Your task to perform on an android device: Search for vegetarian restaurants on Maps Image 0: 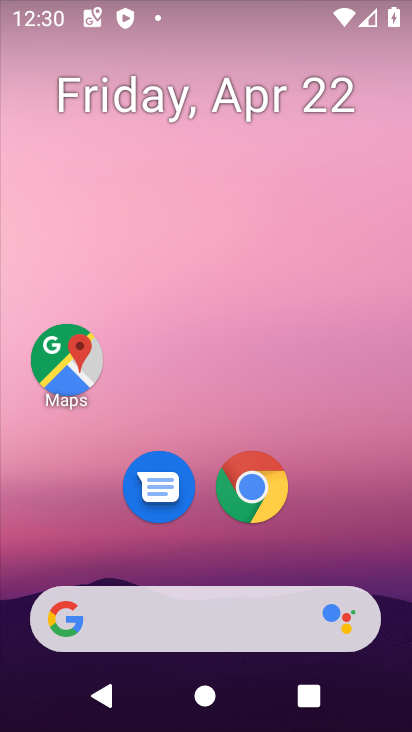
Step 0: click (70, 353)
Your task to perform on an android device: Search for vegetarian restaurants on Maps Image 1: 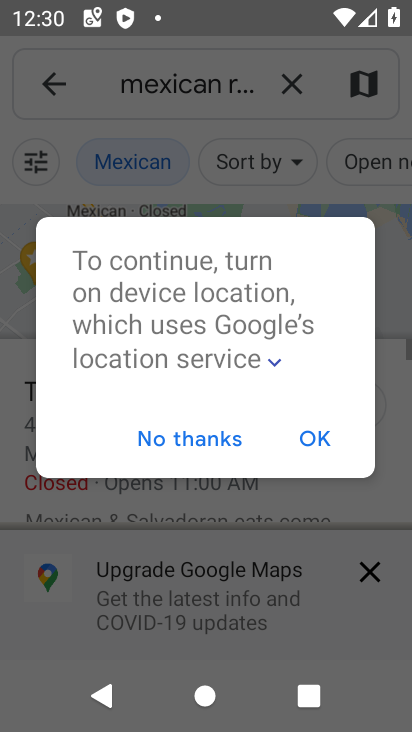
Step 1: click (303, 423)
Your task to perform on an android device: Search for vegetarian restaurants on Maps Image 2: 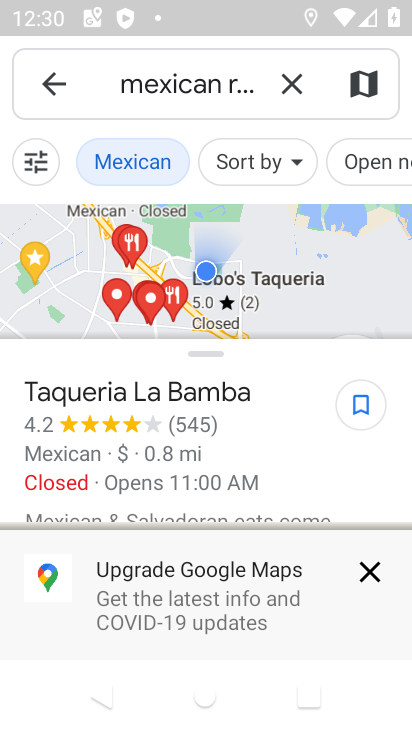
Step 2: click (291, 83)
Your task to perform on an android device: Search for vegetarian restaurants on Maps Image 3: 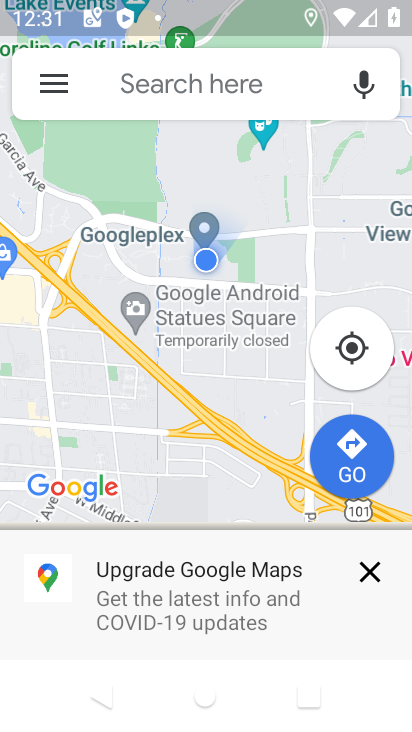
Step 3: click (240, 76)
Your task to perform on an android device: Search for vegetarian restaurants on Maps Image 4: 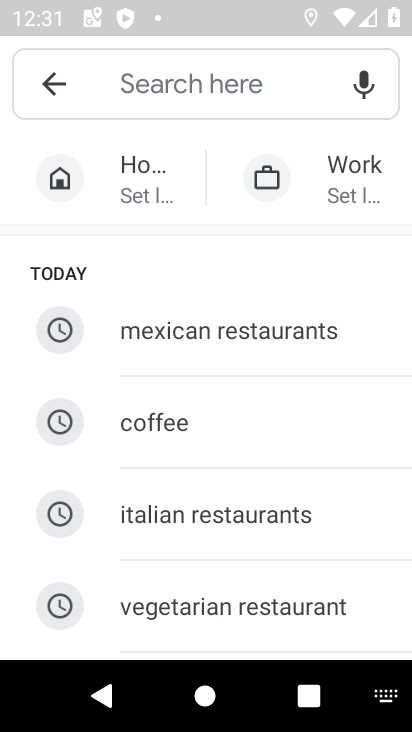
Step 4: type "vegetarian restaurants"
Your task to perform on an android device: Search for vegetarian restaurants on Maps Image 5: 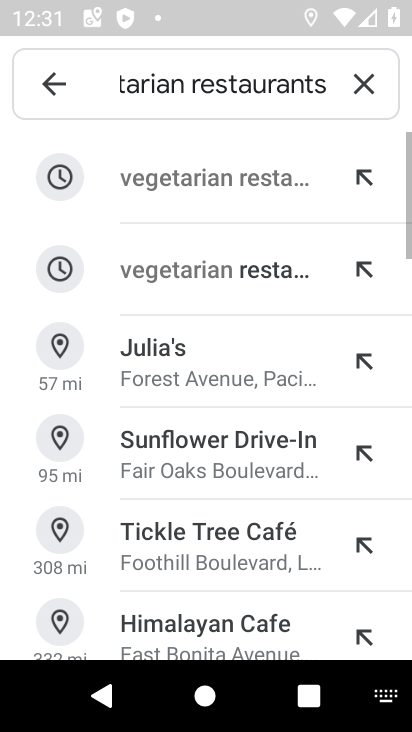
Step 5: click (259, 174)
Your task to perform on an android device: Search for vegetarian restaurants on Maps Image 6: 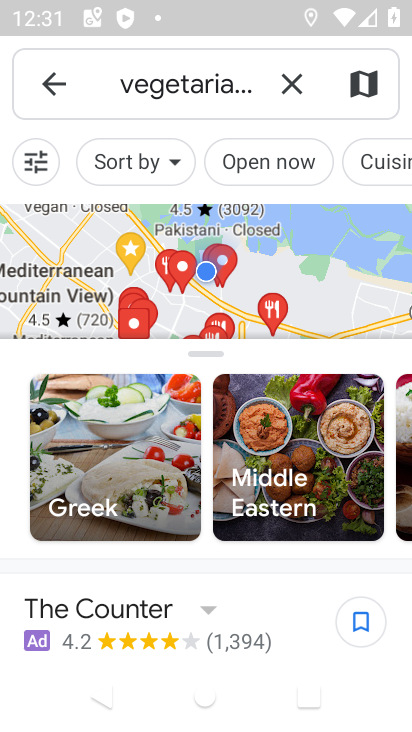
Step 6: task complete